Your task to perform on an android device: star an email in the gmail app Image 0: 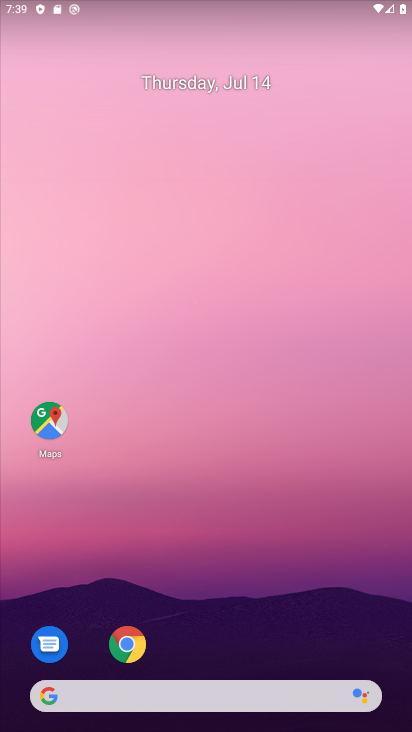
Step 0: drag from (214, 692) to (319, 278)
Your task to perform on an android device: star an email in the gmail app Image 1: 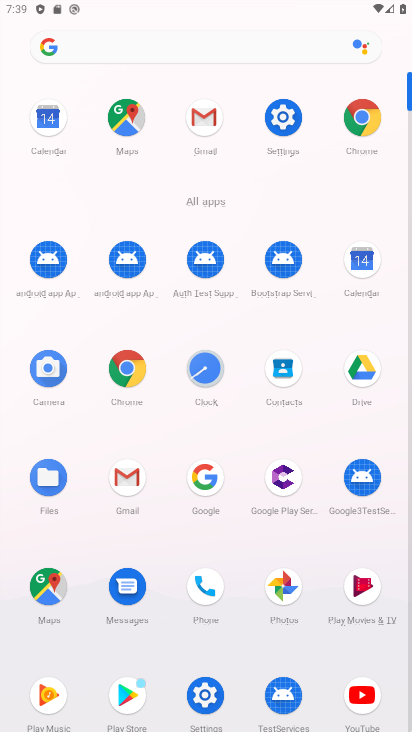
Step 1: click (201, 124)
Your task to perform on an android device: star an email in the gmail app Image 2: 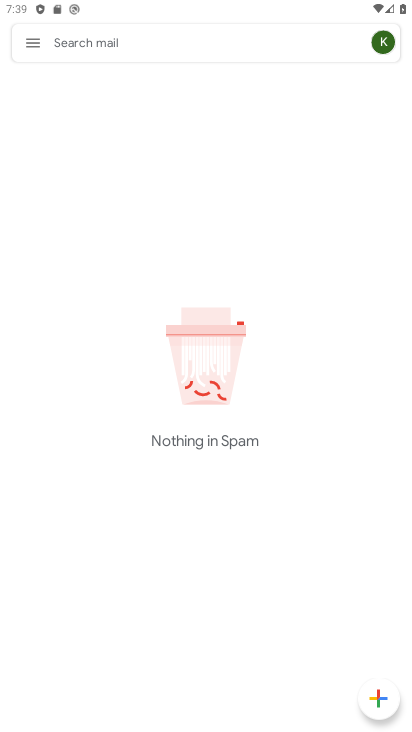
Step 2: click (37, 35)
Your task to perform on an android device: star an email in the gmail app Image 3: 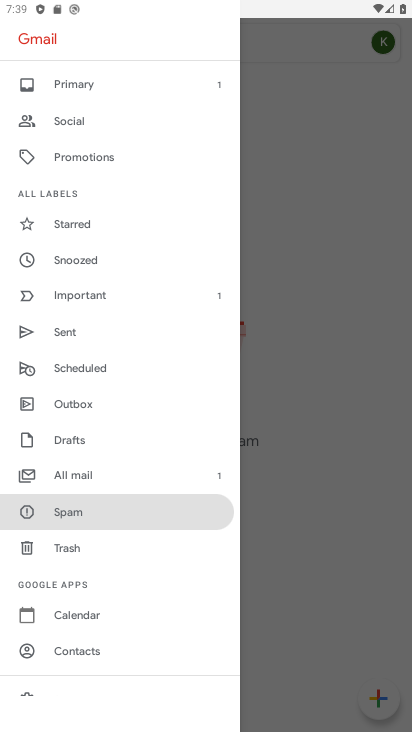
Step 3: click (91, 93)
Your task to perform on an android device: star an email in the gmail app Image 4: 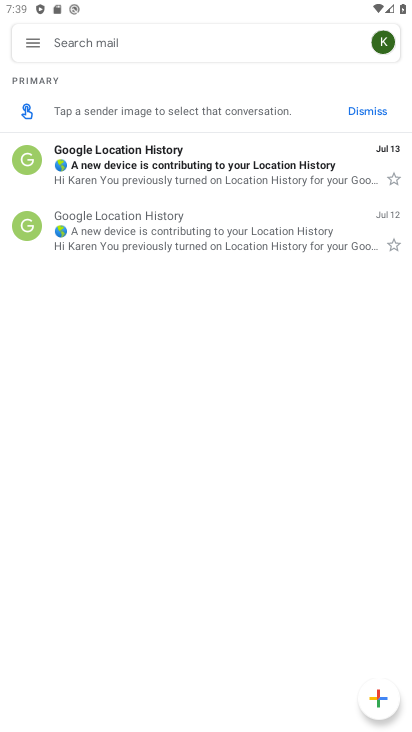
Step 4: click (26, 159)
Your task to perform on an android device: star an email in the gmail app Image 5: 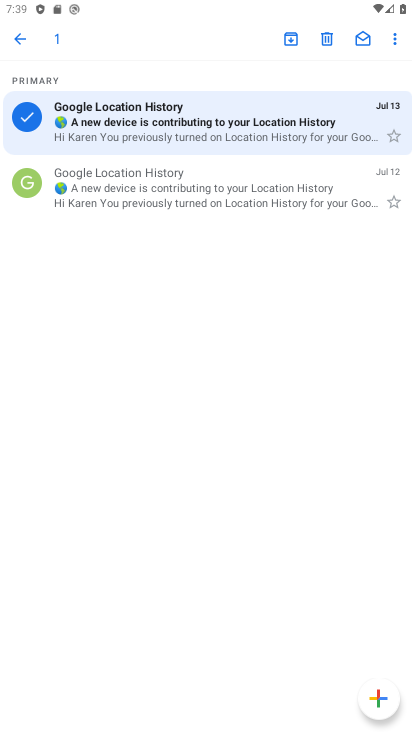
Step 5: click (394, 37)
Your task to perform on an android device: star an email in the gmail app Image 6: 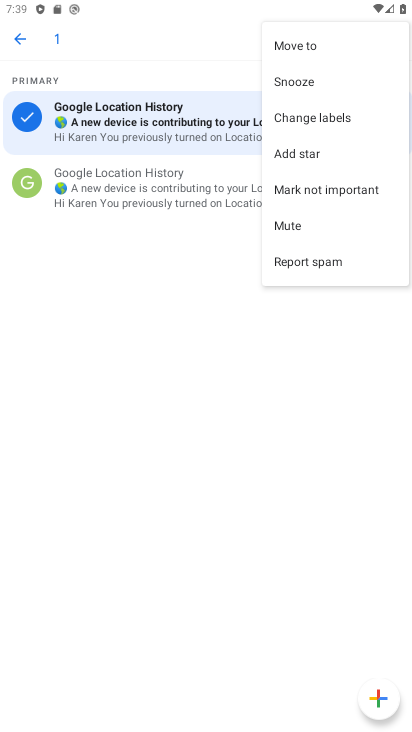
Step 6: click (294, 151)
Your task to perform on an android device: star an email in the gmail app Image 7: 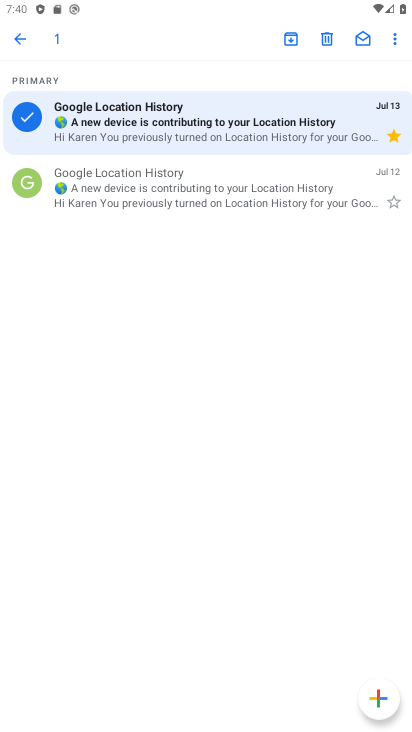
Step 7: task complete